Your task to perform on an android device: manage bookmarks in the chrome app Image 0: 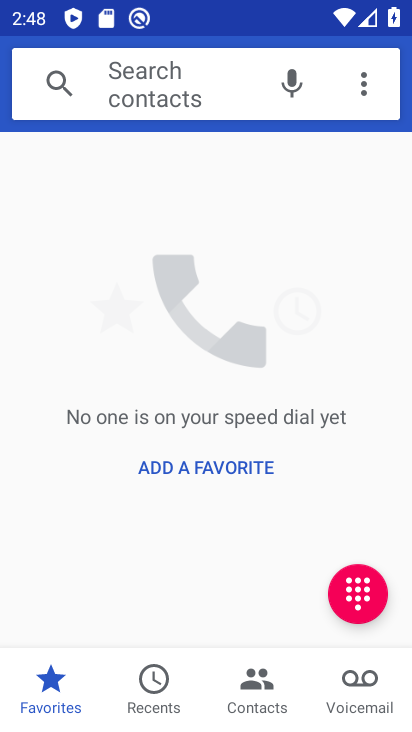
Step 0: press home button
Your task to perform on an android device: manage bookmarks in the chrome app Image 1: 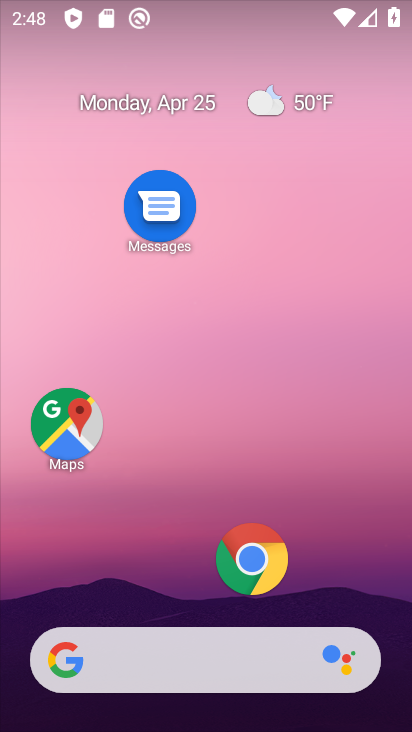
Step 1: click (244, 545)
Your task to perform on an android device: manage bookmarks in the chrome app Image 2: 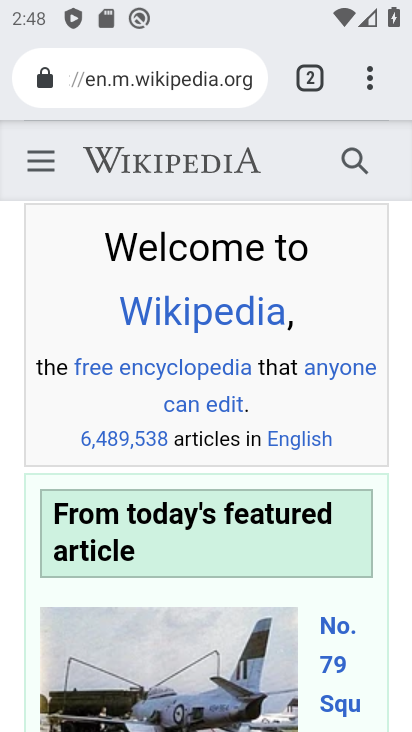
Step 2: click (366, 76)
Your task to perform on an android device: manage bookmarks in the chrome app Image 3: 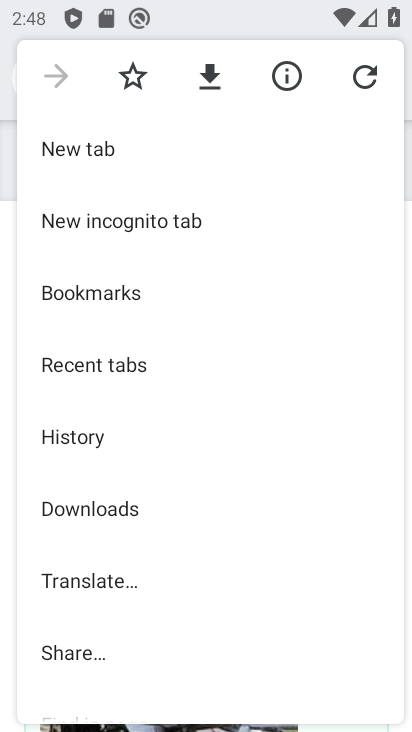
Step 3: click (118, 291)
Your task to perform on an android device: manage bookmarks in the chrome app Image 4: 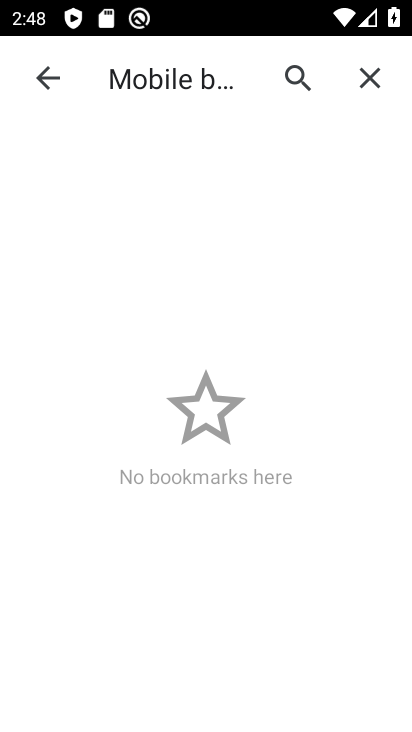
Step 4: task complete